Your task to perform on an android device: add a contact Image 0: 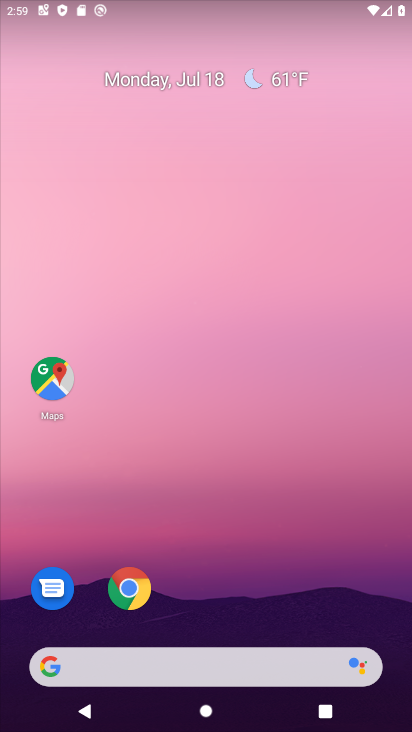
Step 0: drag from (332, 596) to (267, 15)
Your task to perform on an android device: add a contact Image 1: 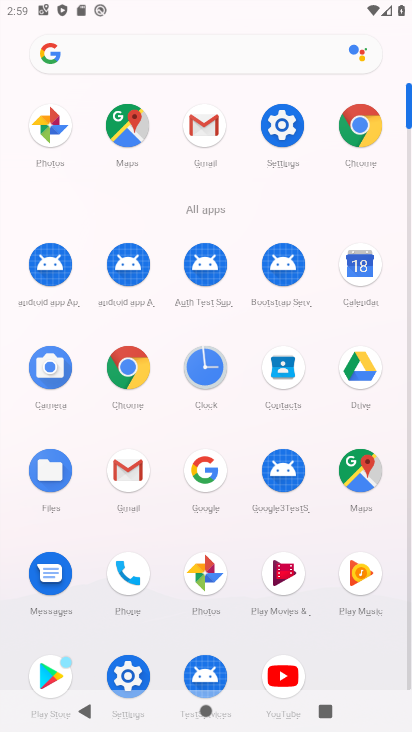
Step 1: click (209, 371)
Your task to perform on an android device: add a contact Image 2: 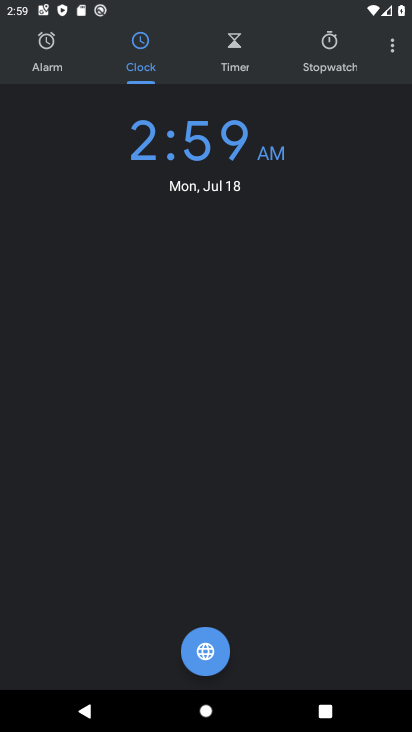
Step 2: click (84, 724)
Your task to perform on an android device: add a contact Image 3: 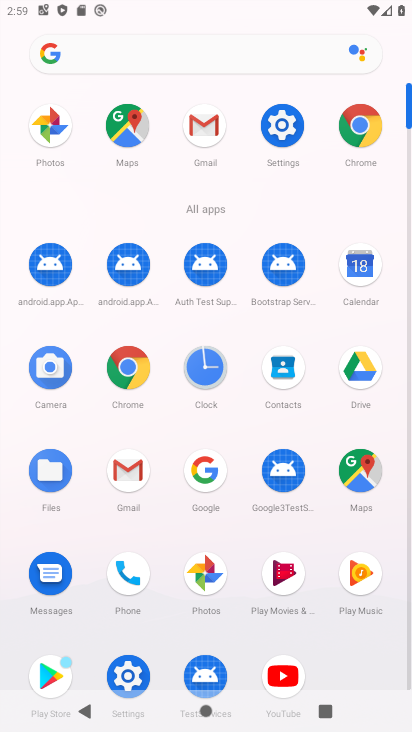
Step 3: click (304, 384)
Your task to perform on an android device: add a contact Image 4: 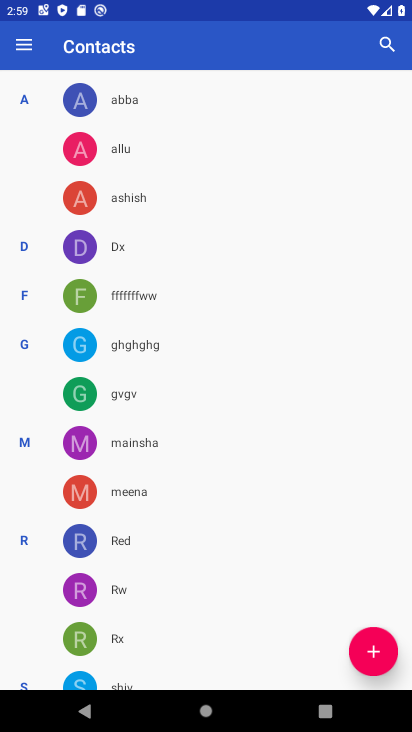
Step 4: click (374, 669)
Your task to perform on an android device: add a contact Image 5: 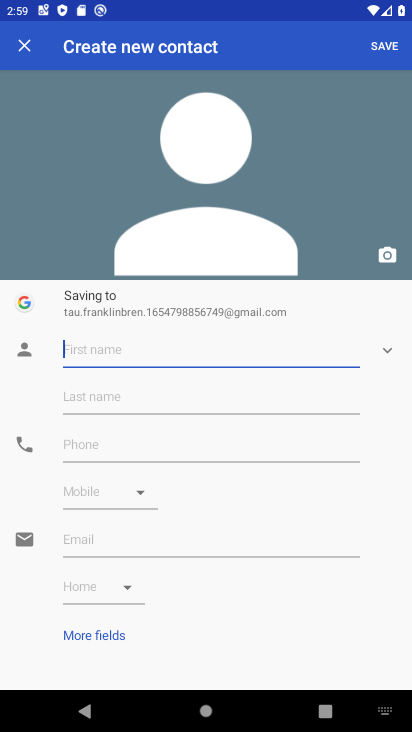
Step 5: type "ddfs"
Your task to perform on an android device: add a contact Image 6: 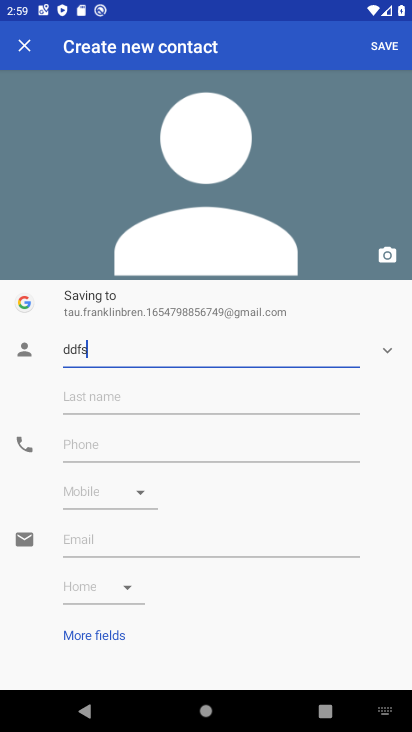
Step 6: click (323, 387)
Your task to perform on an android device: add a contact Image 7: 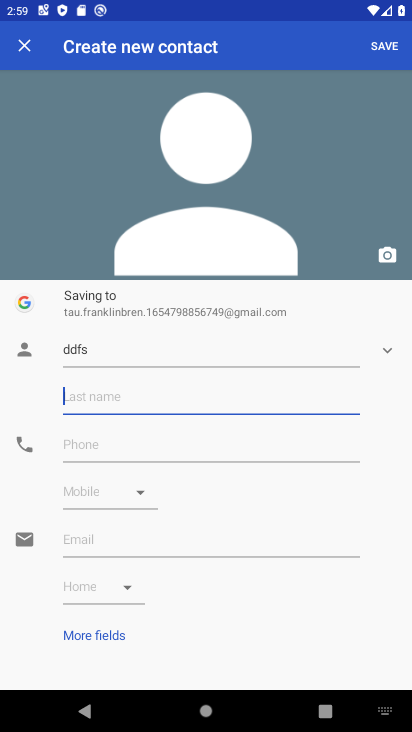
Step 7: type "dffd"
Your task to perform on an android device: add a contact Image 8: 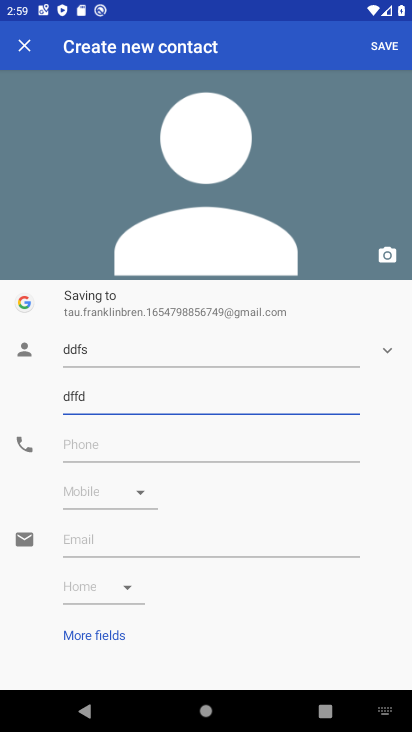
Step 8: click (205, 452)
Your task to perform on an android device: add a contact Image 9: 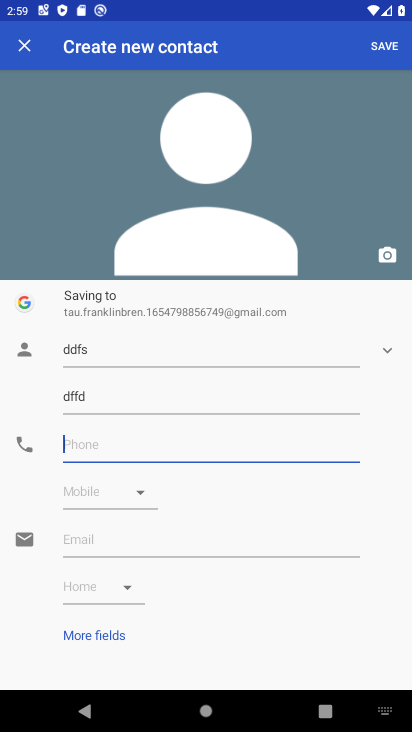
Step 9: type "24235534675"
Your task to perform on an android device: add a contact Image 10: 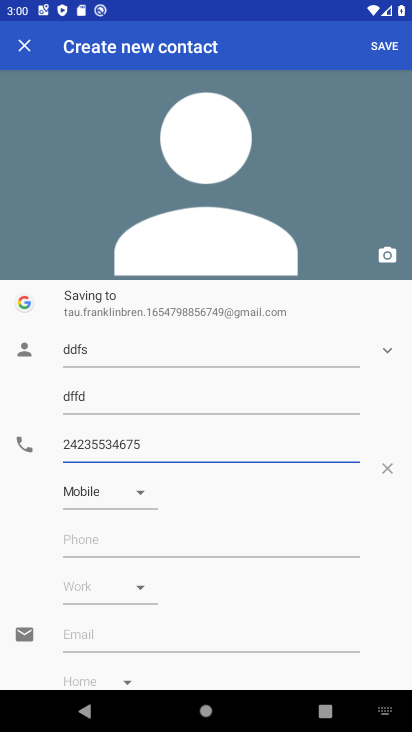
Step 10: click (389, 47)
Your task to perform on an android device: add a contact Image 11: 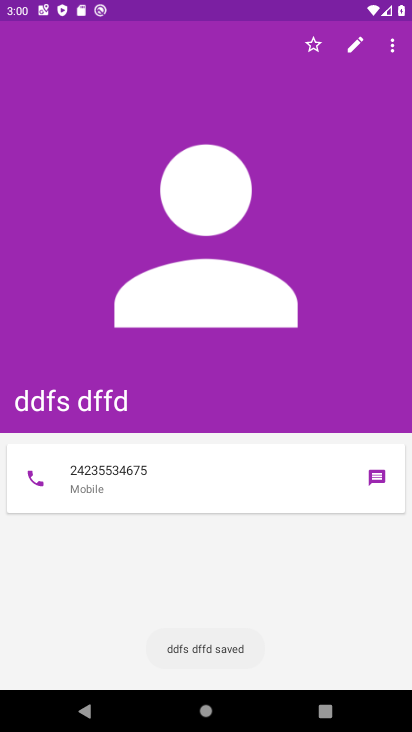
Step 11: task complete